Your task to perform on an android device: Open Youtube and go to "Your channel" Image 0: 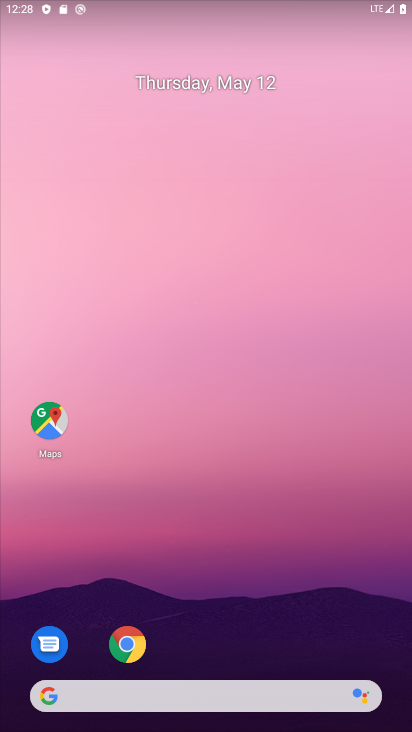
Step 0: drag from (280, 525) to (210, 11)
Your task to perform on an android device: Open Youtube and go to "Your channel" Image 1: 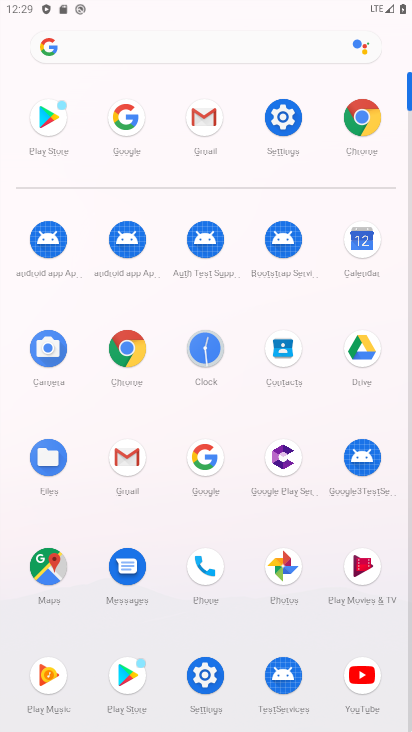
Step 1: click (369, 669)
Your task to perform on an android device: Open Youtube and go to "Your channel" Image 2: 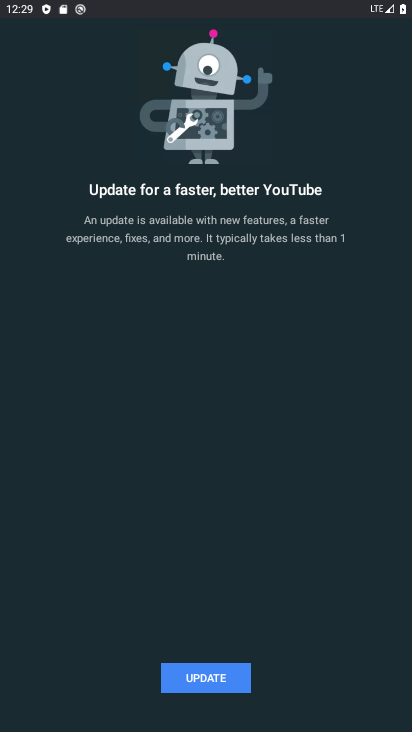
Step 2: click (229, 680)
Your task to perform on an android device: Open Youtube and go to "Your channel" Image 3: 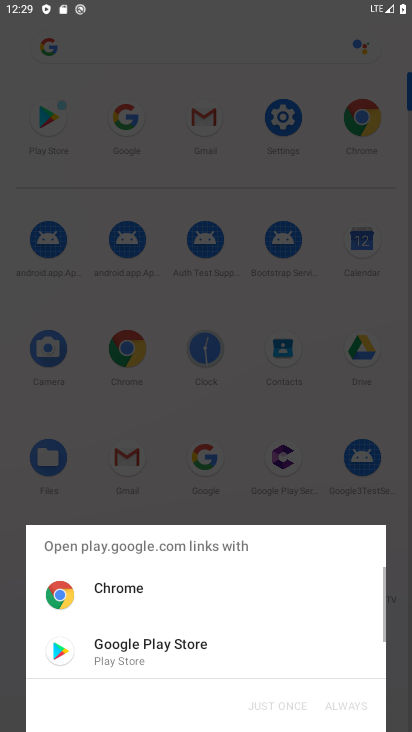
Step 3: click (150, 646)
Your task to perform on an android device: Open Youtube and go to "Your channel" Image 4: 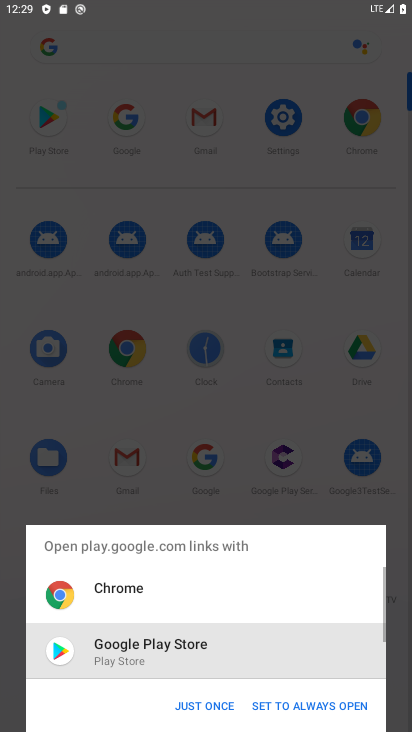
Step 4: click (191, 709)
Your task to perform on an android device: Open Youtube and go to "Your channel" Image 5: 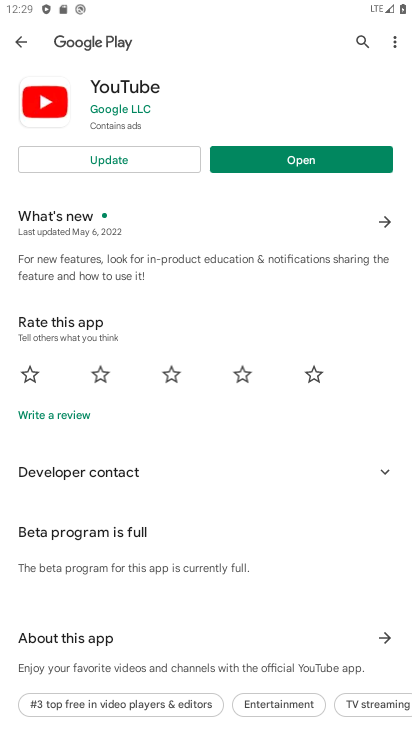
Step 5: click (155, 155)
Your task to perform on an android device: Open Youtube and go to "Your channel" Image 6: 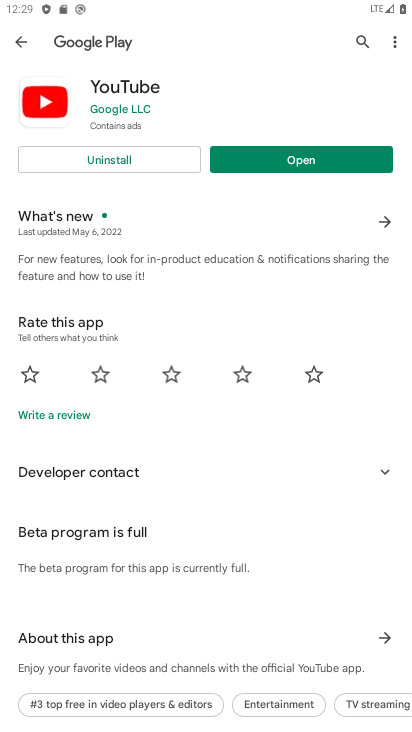
Step 6: click (294, 157)
Your task to perform on an android device: Open Youtube and go to "Your channel" Image 7: 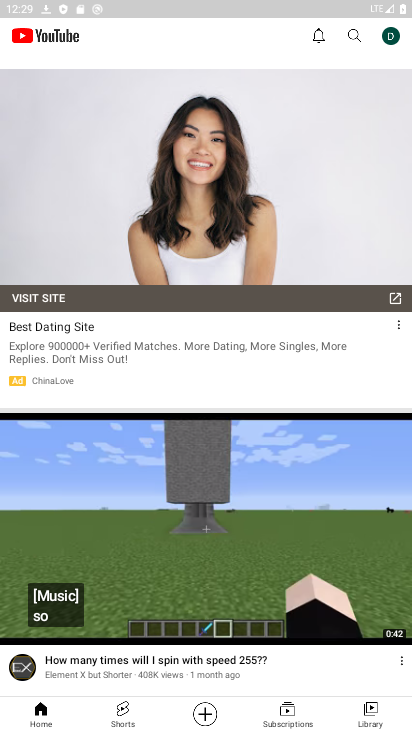
Step 7: click (392, 36)
Your task to perform on an android device: Open Youtube and go to "Your channel" Image 8: 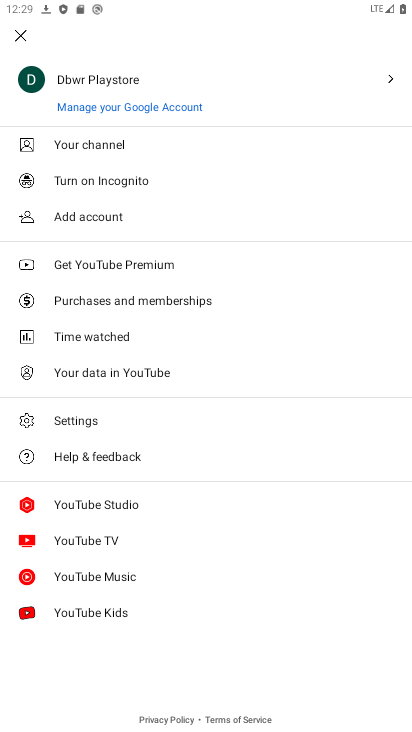
Step 8: click (110, 143)
Your task to perform on an android device: Open Youtube and go to "Your channel" Image 9: 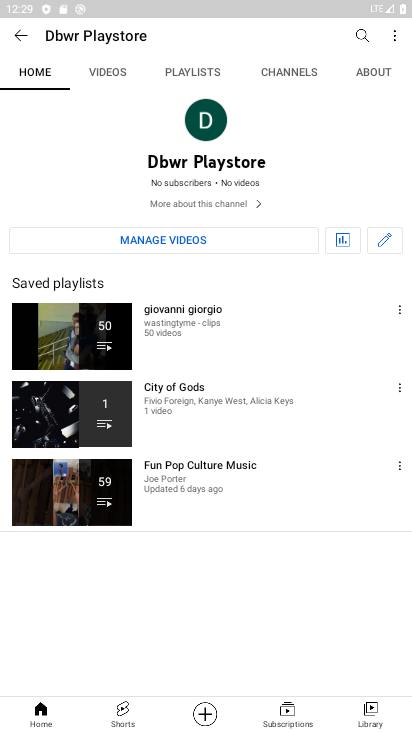
Step 9: task complete